Your task to perform on an android device: toggle notifications settings in the gmail app Image 0: 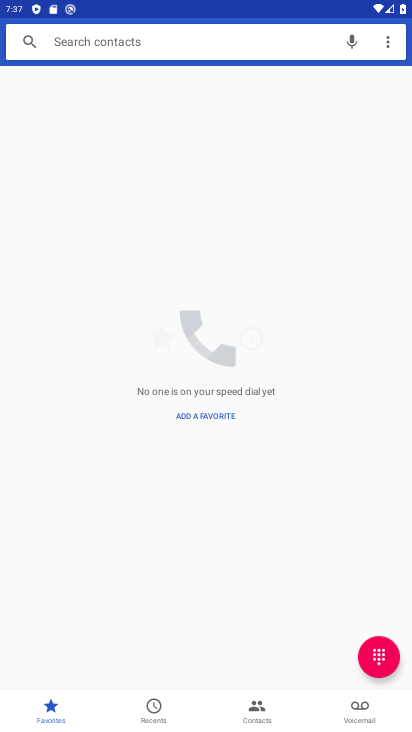
Step 0: click (326, 571)
Your task to perform on an android device: toggle notifications settings in the gmail app Image 1: 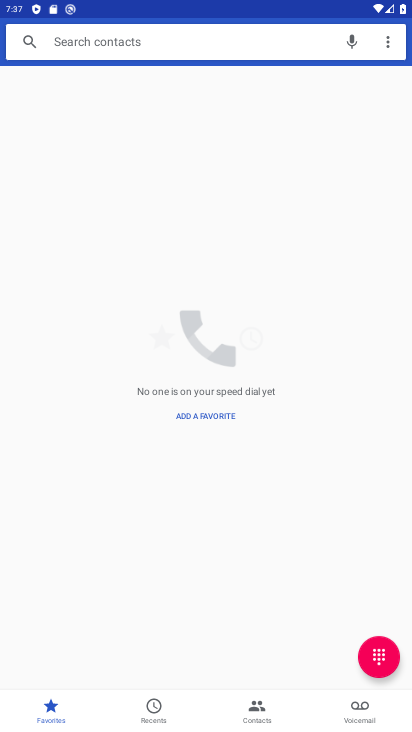
Step 1: press home button
Your task to perform on an android device: toggle notifications settings in the gmail app Image 2: 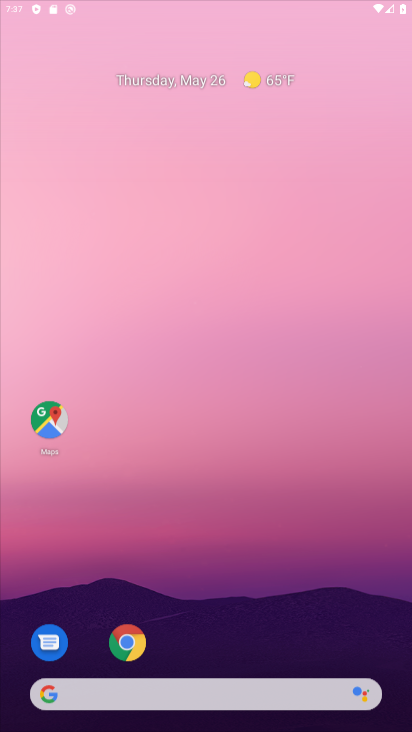
Step 2: drag from (167, 577) to (185, 56)
Your task to perform on an android device: toggle notifications settings in the gmail app Image 3: 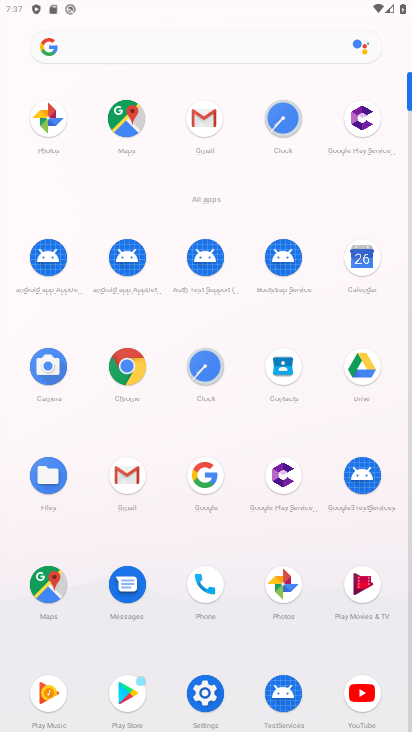
Step 3: click (132, 476)
Your task to perform on an android device: toggle notifications settings in the gmail app Image 4: 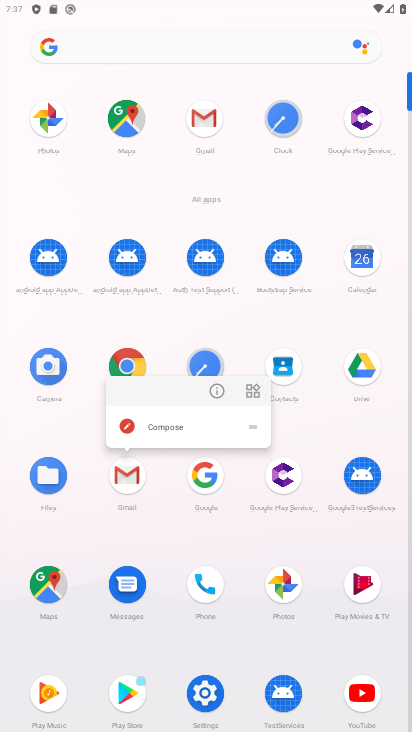
Step 4: click (223, 387)
Your task to perform on an android device: toggle notifications settings in the gmail app Image 5: 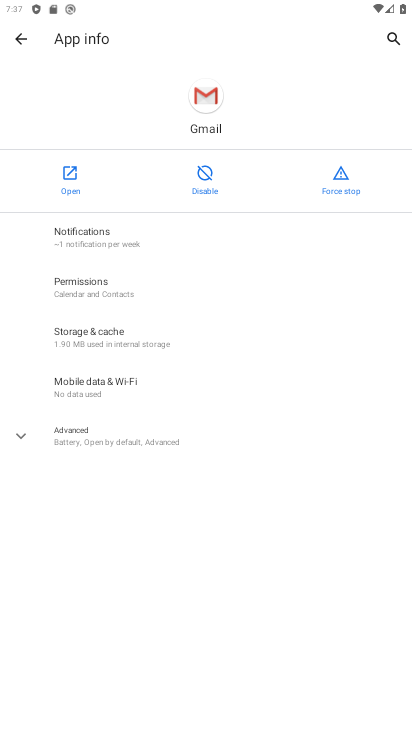
Step 5: click (60, 181)
Your task to perform on an android device: toggle notifications settings in the gmail app Image 6: 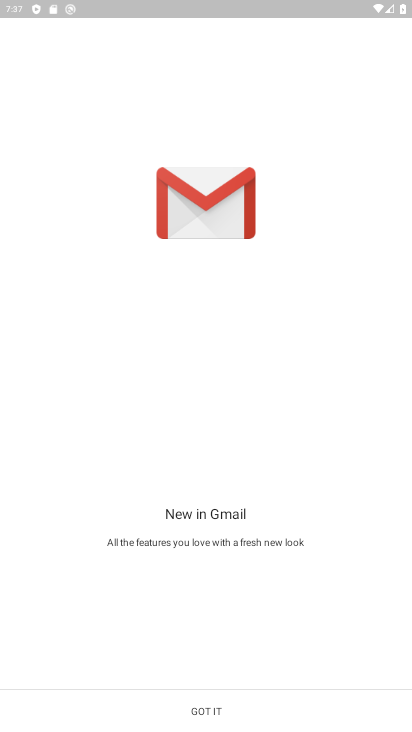
Step 6: click (211, 704)
Your task to perform on an android device: toggle notifications settings in the gmail app Image 7: 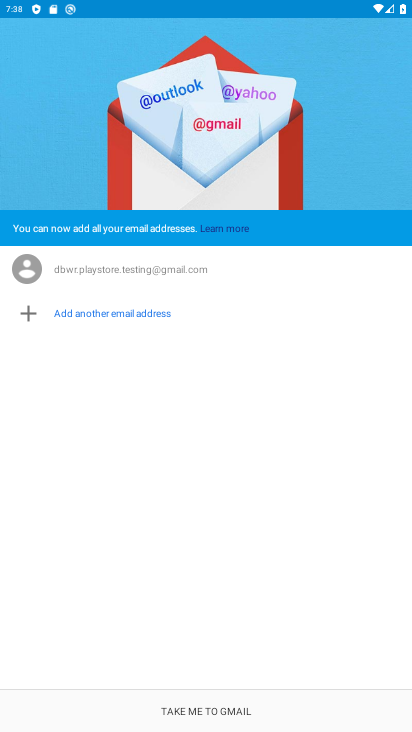
Step 7: click (191, 710)
Your task to perform on an android device: toggle notifications settings in the gmail app Image 8: 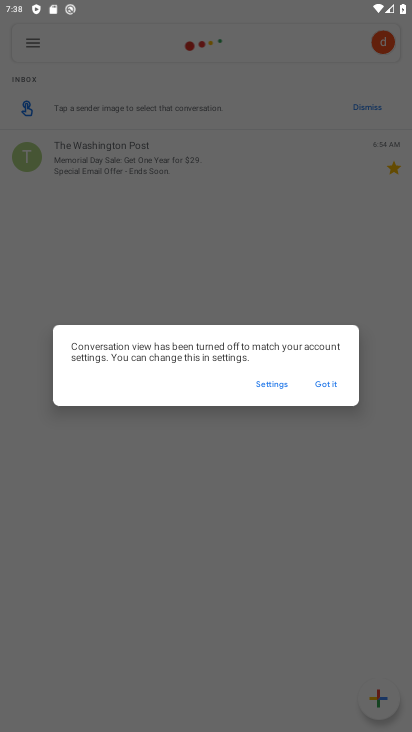
Step 8: click (332, 391)
Your task to perform on an android device: toggle notifications settings in the gmail app Image 9: 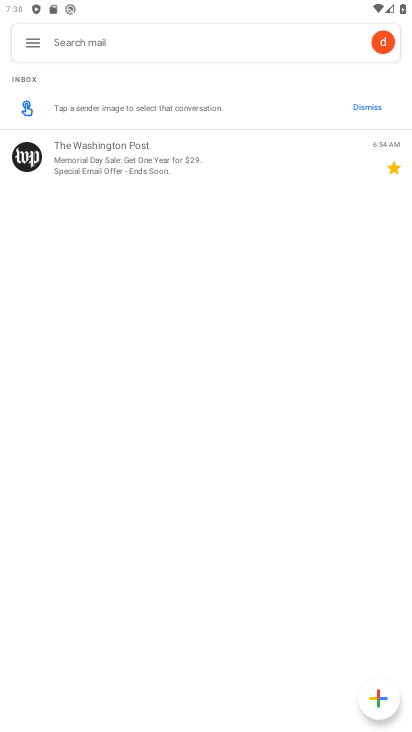
Step 9: click (30, 41)
Your task to perform on an android device: toggle notifications settings in the gmail app Image 10: 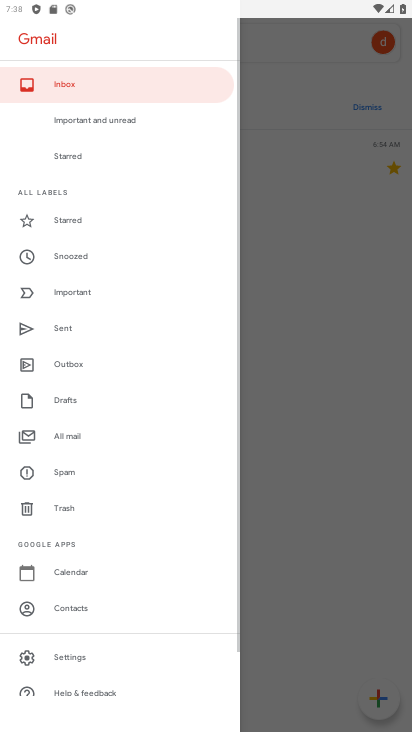
Step 10: click (118, 655)
Your task to perform on an android device: toggle notifications settings in the gmail app Image 11: 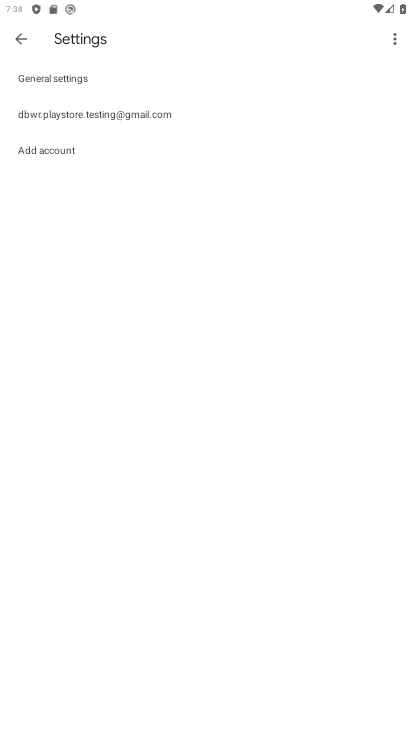
Step 11: click (99, 110)
Your task to perform on an android device: toggle notifications settings in the gmail app Image 12: 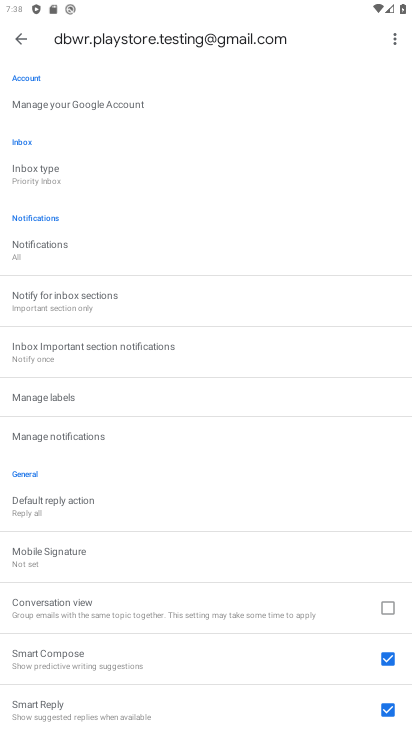
Step 12: click (79, 437)
Your task to perform on an android device: toggle notifications settings in the gmail app Image 13: 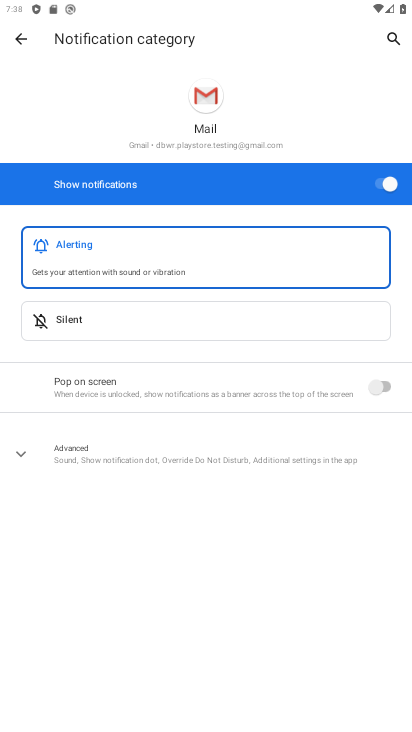
Step 13: click (386, 192)
Your task to perform on an android device: toggle notifications settings in the gmail app Image 14: 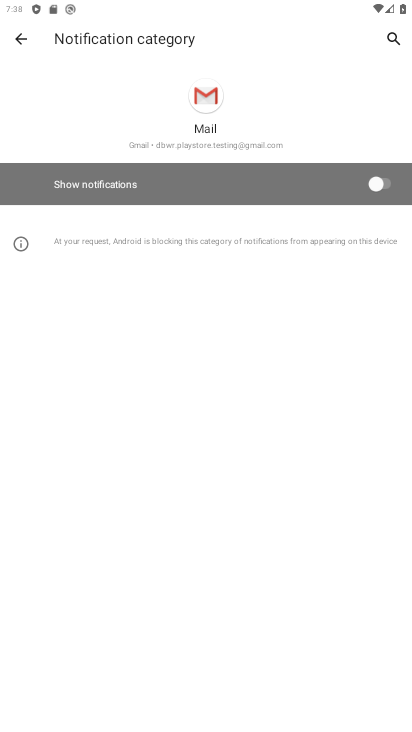
Step 14: task complete